Your task to perform on an android device: Open accessibility settings Image 0: 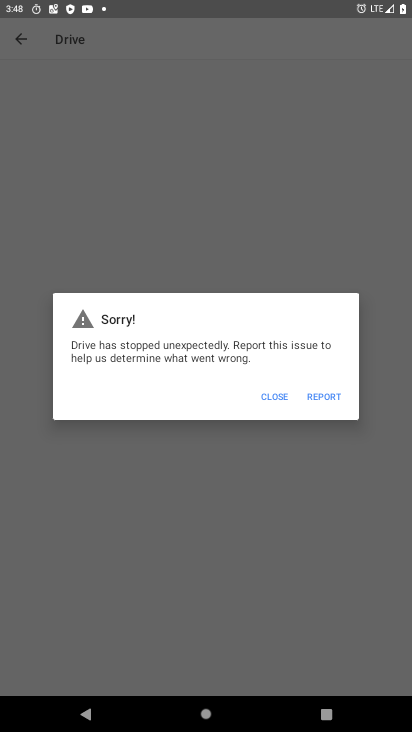
Step 0: press home button
Your task to perform on an android device: Open accessibility settings Image 1: 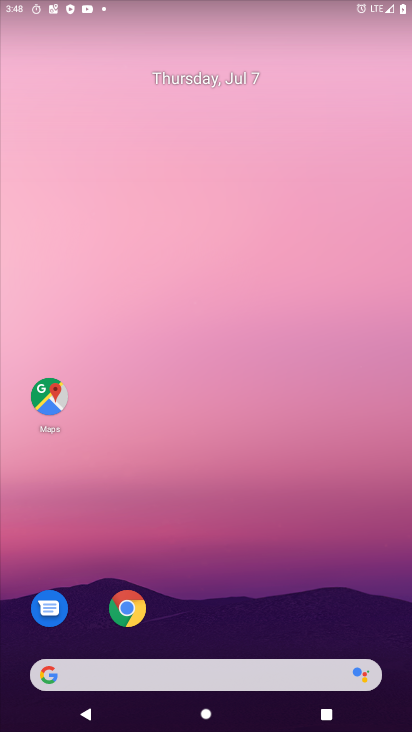
Step 1: drag from (255, 723) to (242, 106)
Your task to perform on an android device: Open accessibility settings Image 2: 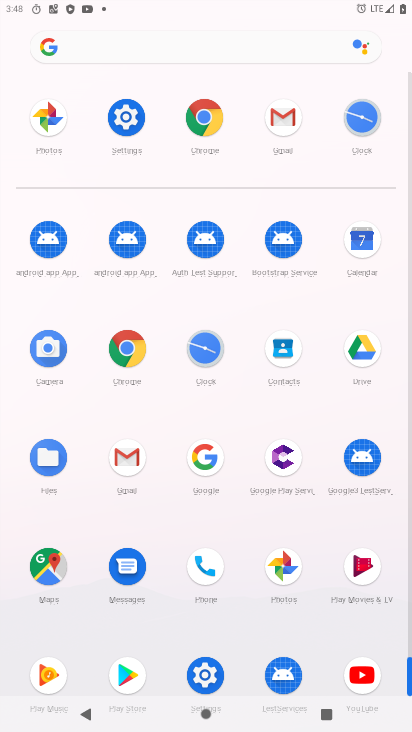
Step 2: click (123, 120)
Your task to perform on an android device: Open accessibility settings Image 3: 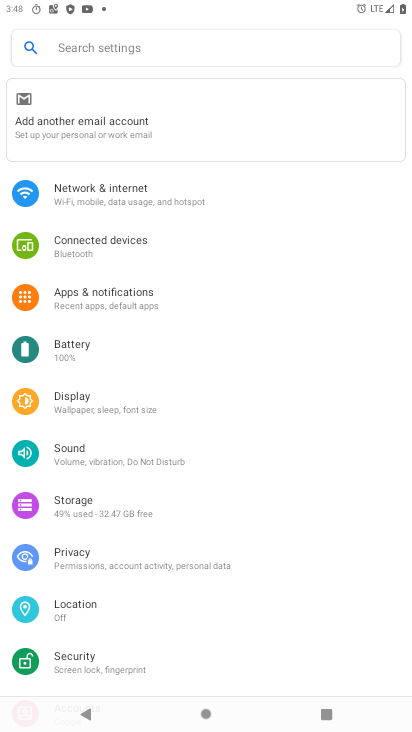
Step 3: drag from (129, 661) to (114, 509)
Your task to perform on an android device: Open accessibility settings Image 4: 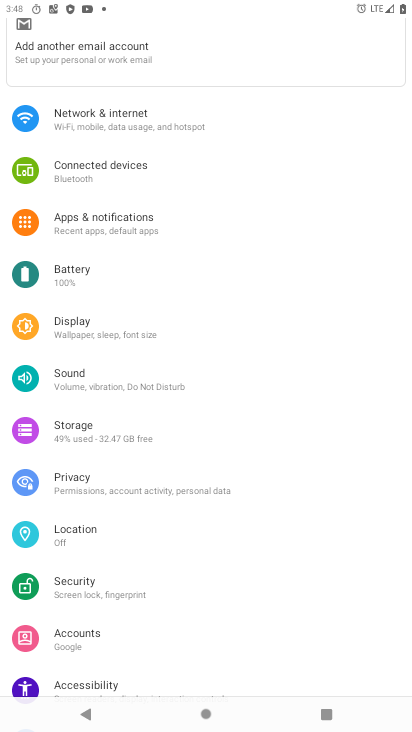
Step 4: drag from (114, 405) to (114, 323)
Your task to perform on an android device: Open accessibility settings Image 5: 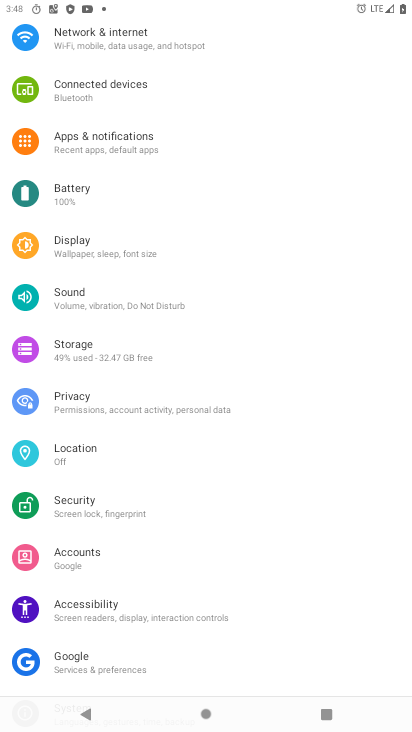
Step 5: click (79, 605)
Your task to perform on an android device: Open accessibility settings Image 6: 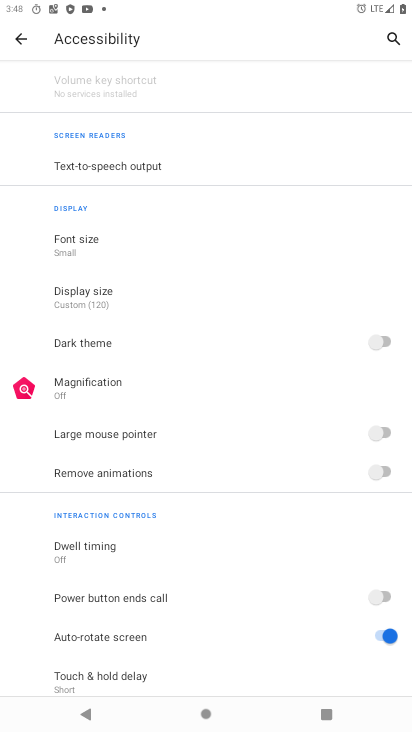
Step 6: task complete